Your task to perform on an android device: turn on wifi Image 0: 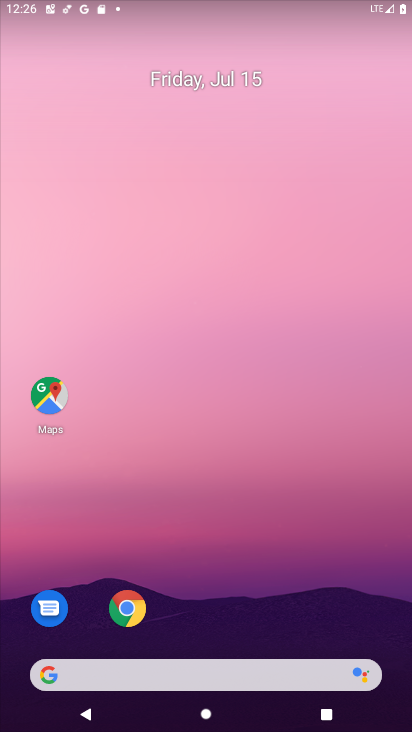
Step 0: drag from (235, 567) to (183, 2)
Your task to perform on an android device: turn on wifi Image 1: 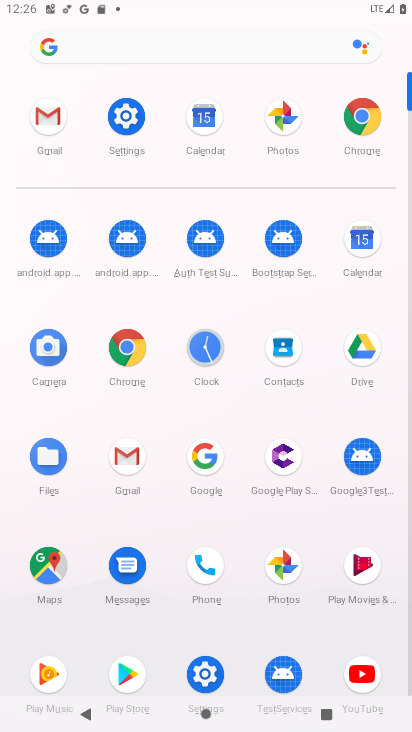
Step 1: click (122, 101)
Your task to perform on an android device: turn on wifi Image 2: 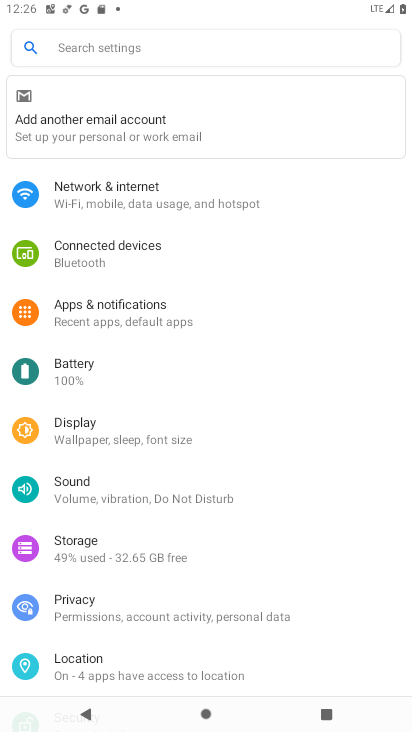
Step 2: click (104, 185)
Your task to perform on an android device: turn on wifi Image 3: 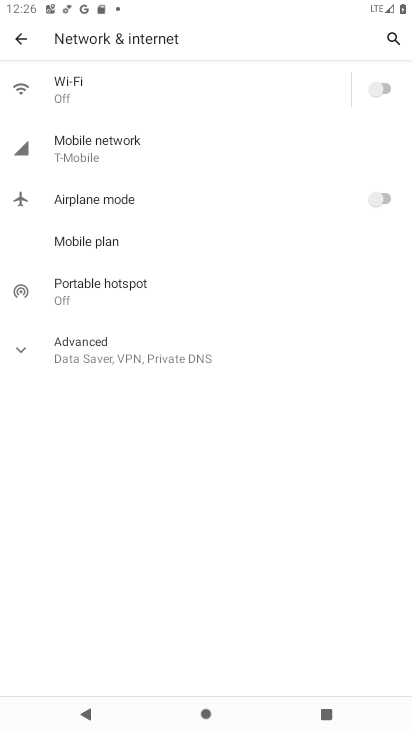
Step 3: click (377, 91)
Your task to perform on an android device: turn on wifi Image 4: 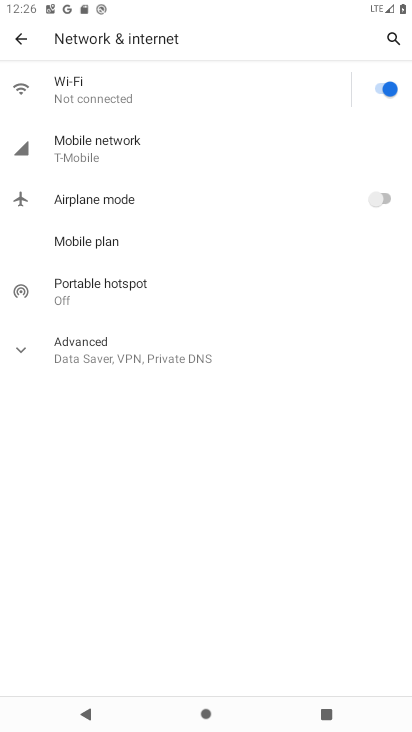
Step 4: task complete